Your task to perform on an android device: turn on location history Image 0: 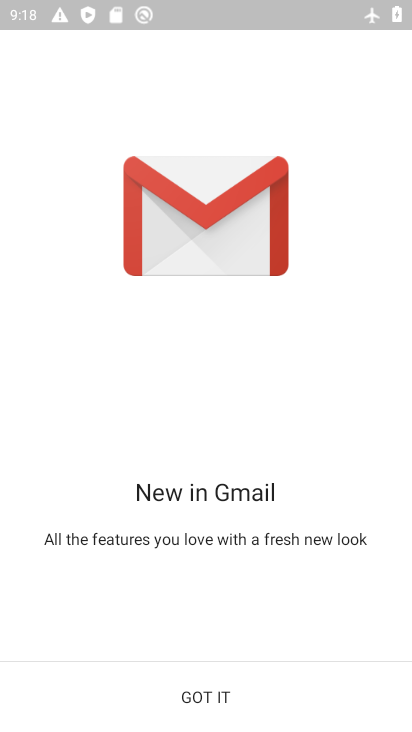
Step 0: press back button
Your task to perform on an android device: turn on location history Image 1: 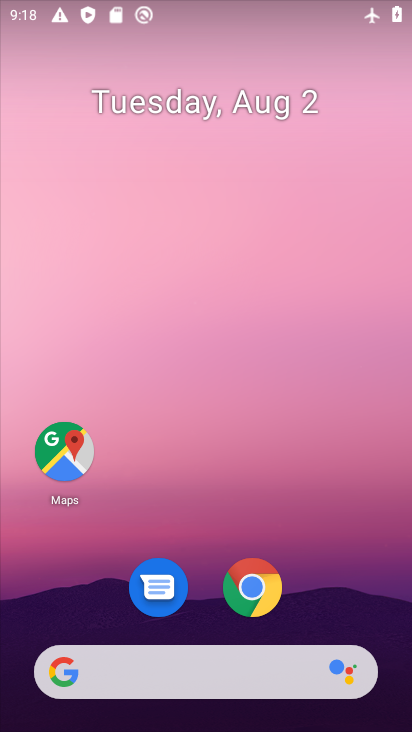
Step 1: drag from (382, 607) to (379, 572)
Your task to perform on an android device: turn on location history Image 2: 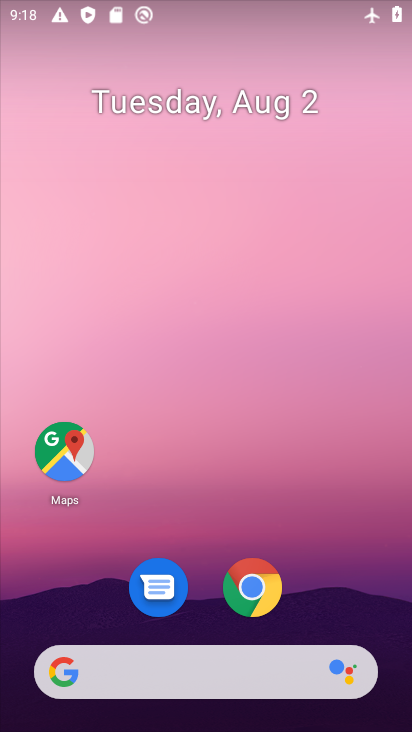
Step 2: click (81, 463)
Your task to perform on an android device: turn on location history Image 3: 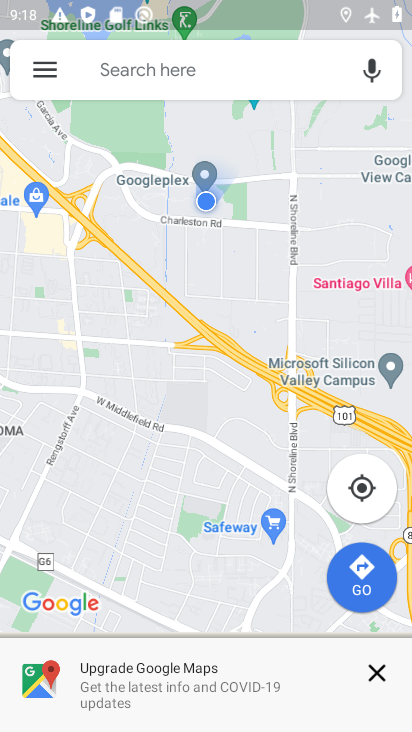
Step 3: click (52, 69)
Your task to perform on an android device: turn on location history Image 4: 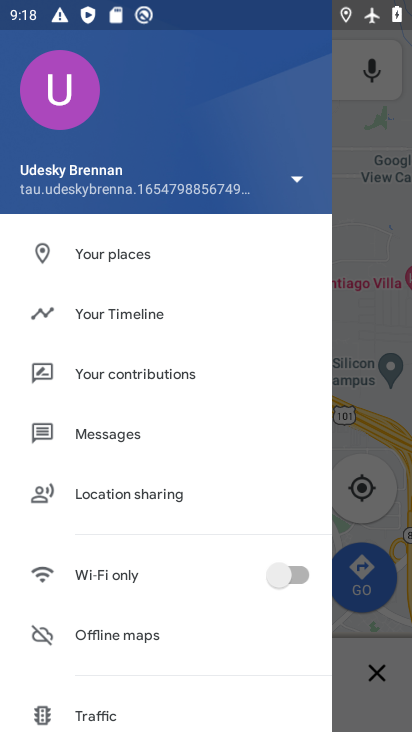
Step 4: click (136, 307)
Your task to perform on an android device: turn on location history Image 5: 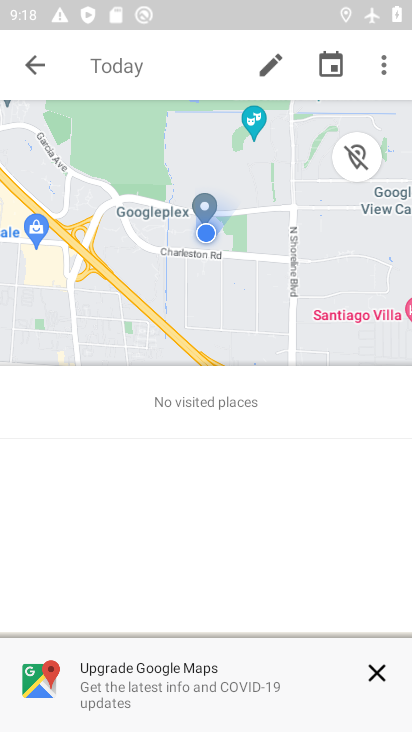
Step 5: click (391, 60)
Your task to perform on an android device: turn on location history Image 6: 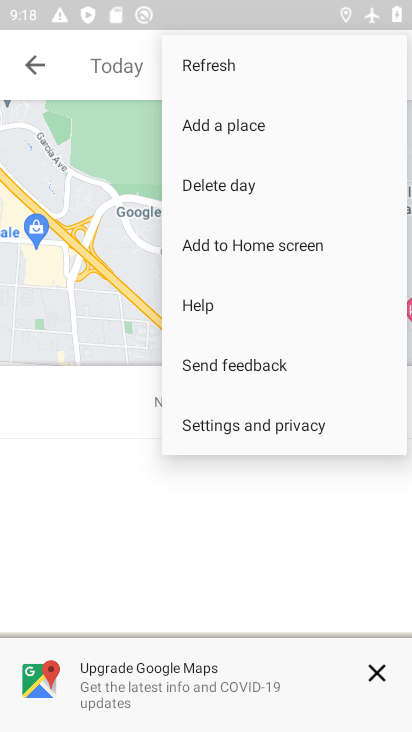
Step 6: click (283, 438)
Your task to perform on an android device: turn on location history Image 7: 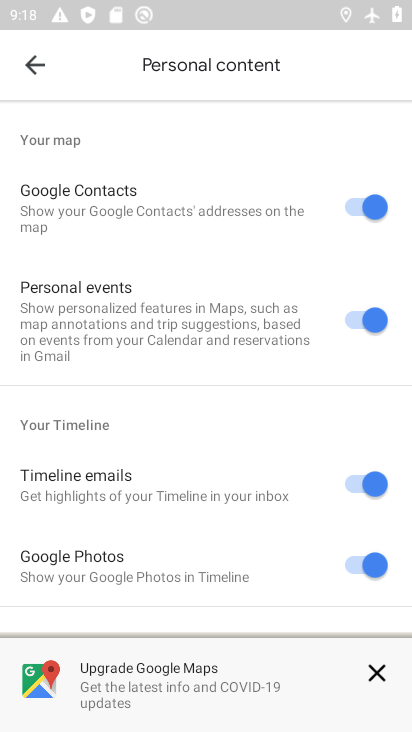
Step 7: drag from (269, 541) to (229, 109)
Your task to perform on an android device: turn on location history Image 8: 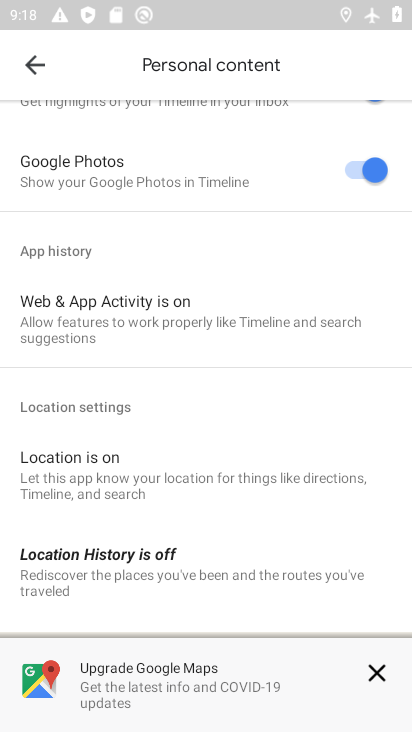
Step 8: drag from (266, 503) to (255, 198)
Your task to perform on an android device: turn on location history Image 9: 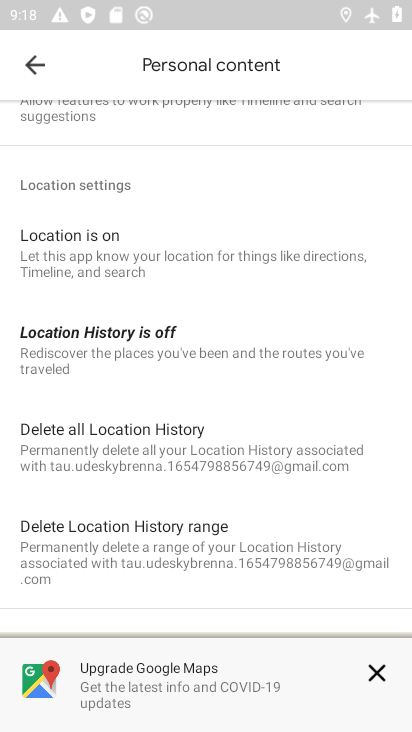
Step 9: click (256, 350)
Your task to perform on an android device: turn on location history Image 10: 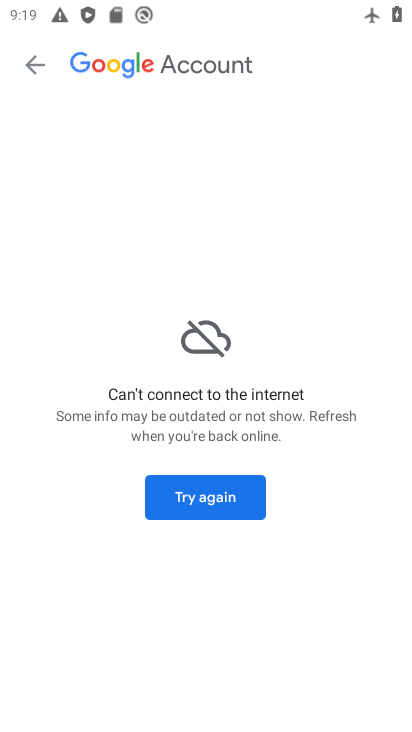
Step 10: task complete